Your task to perform on an android device: delete the emails in spam in the gmail app Image 0: 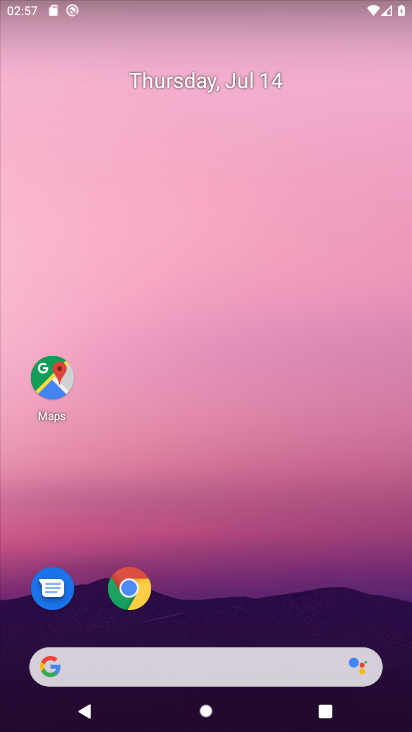
Step 0: drag from (248, 623) to (176, 94)
Your task to perform on an android device: delete the emails in spam in the gmail app Image 1: 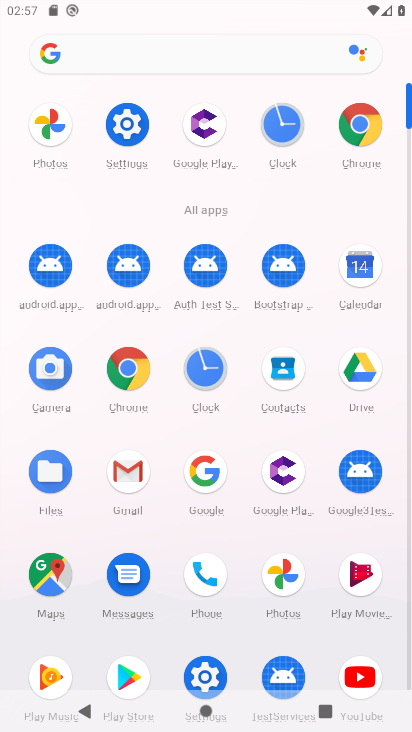
Step 1: click (125, 470)
Your task to perform on an android device: delete the emails in spam in the gmail app Image 2: 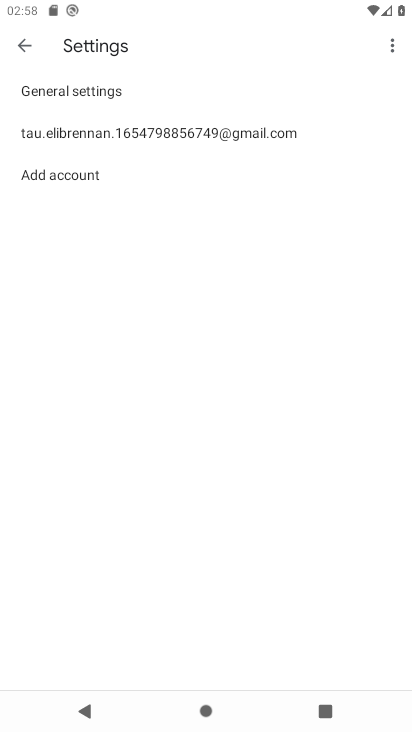
Step 2: click (25, 55)
Your task to perform on an android device: delete the emails in spam in the gmail app Image 3: 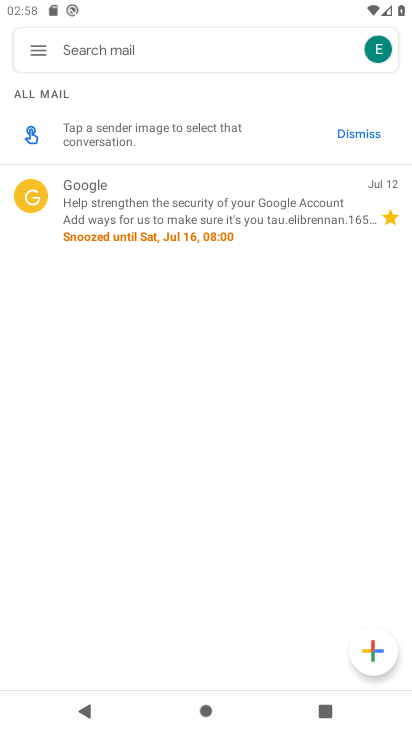
Step 3: click (37, 50)
Your task to perform on an android device: delete the emails in spam in the gmail app Image 4: 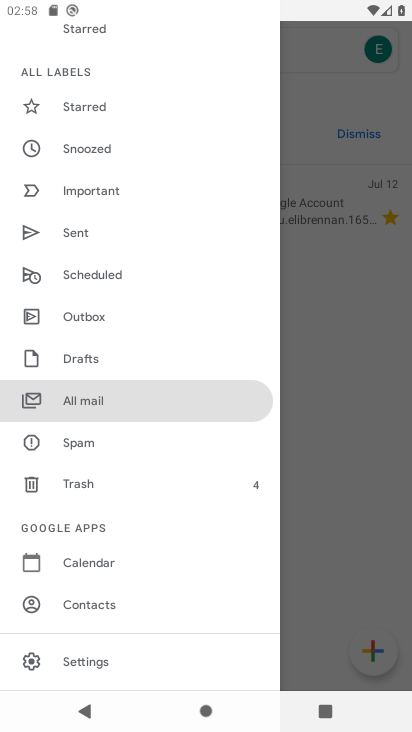
Step 4: click (94, 457)
Your task to perform on an android device: delete the emails in spam in the gmail app Image 5: 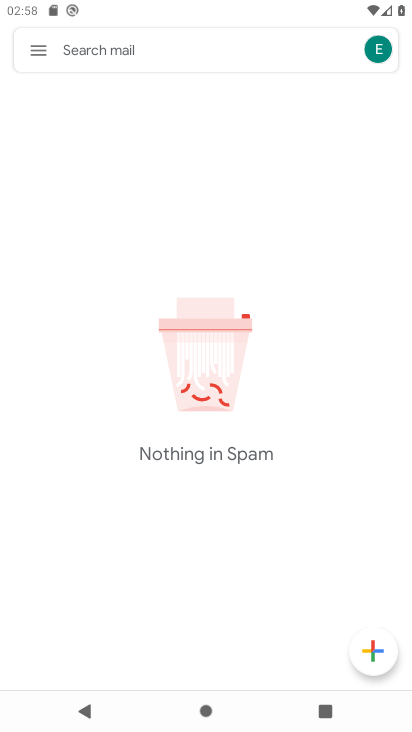
Step 5: task complete